Your task to perform on an android device: What's the weather today? Image 0: 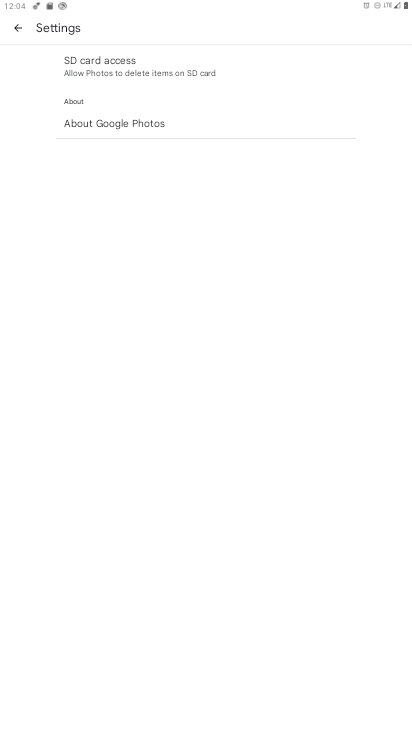
Step 0: press home button
Your task to perform on an android device: What's the weather today? Image 1: 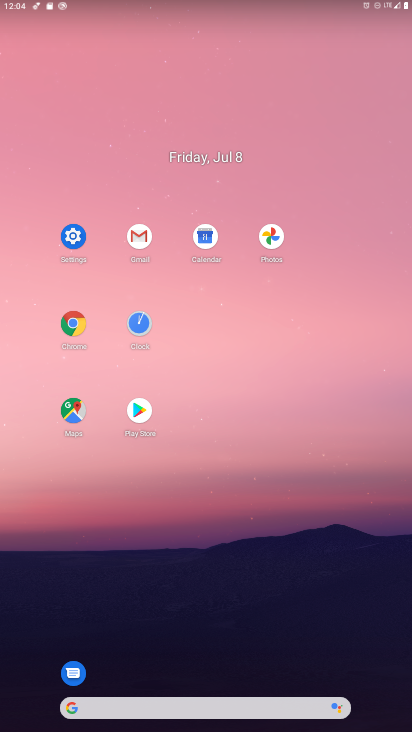
Step 1: click (81, 331)
Your task to perform on an android device: What's the weather today? Image 2: 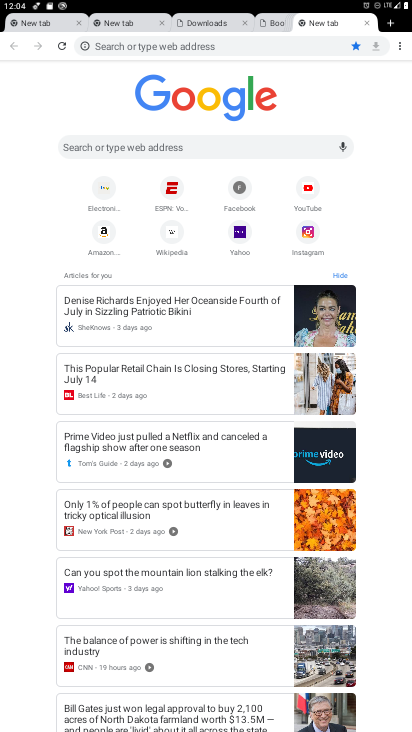
Step 2: click (210, 151)
Your task to perform on an android device: What's the weather today? Image 3: 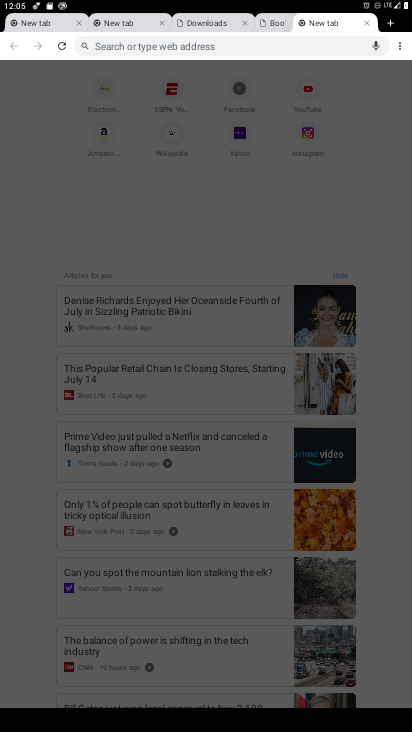
Step 3: type "weather"
Your task to perform on an android device: What's the weather today? Image 4: 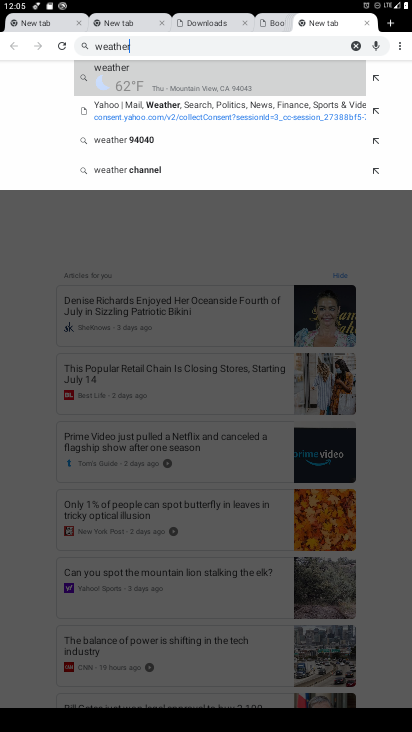
Step 4: click (127, 77)
Your task to perform on an android device: What's the weather today? Image 5: 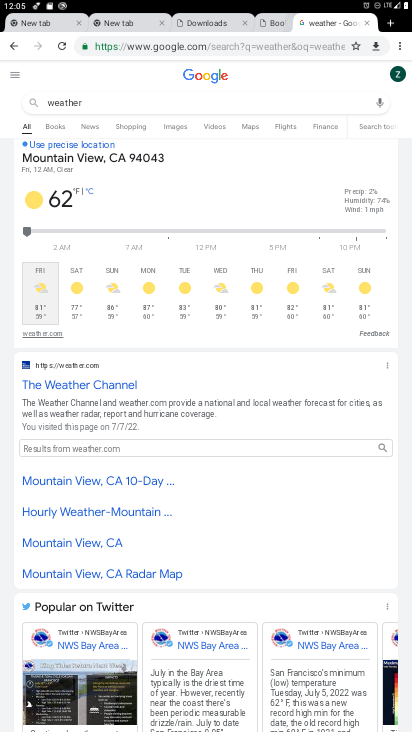
Step 5: task complete